Your task to perform on an android device: turn on priority inbox in the gmail app Image 0: 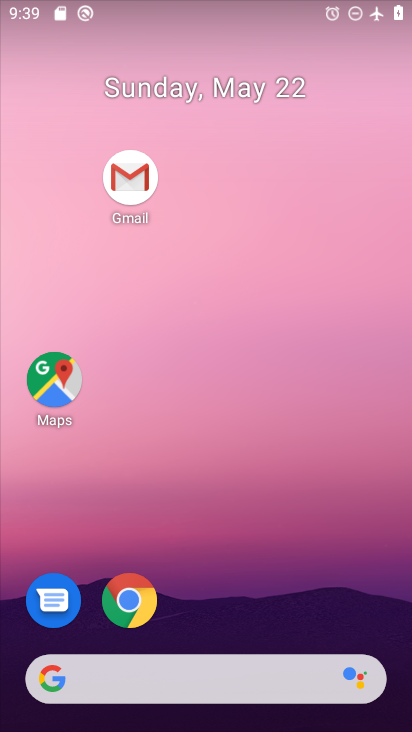
Step 0: drag from (246, 677) to (310, 118)
Your task to perform on an android device: turn on priority inbox in the gmail app Image 1: 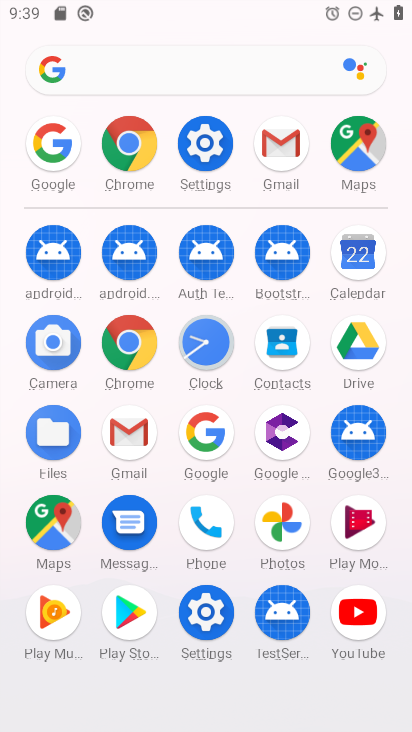
Step 1: click (287, 168)
Your task to perform on an android device: turn on priority inbox in the gmail app Image 2: 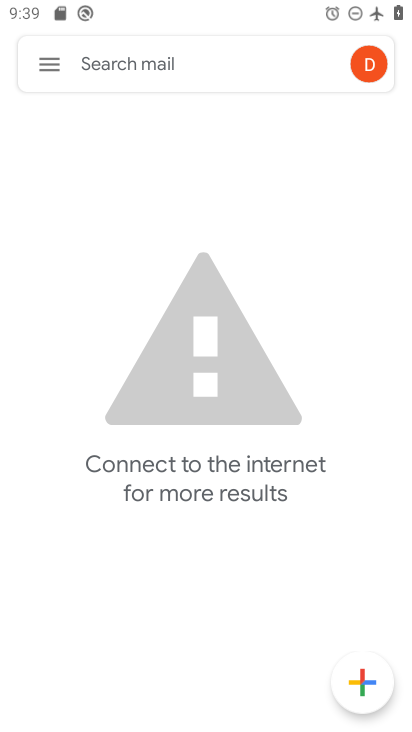
Step 2: click (52, 68)
Your task to perform on an android device: turn on priority inbox in the gmail app Image 3: 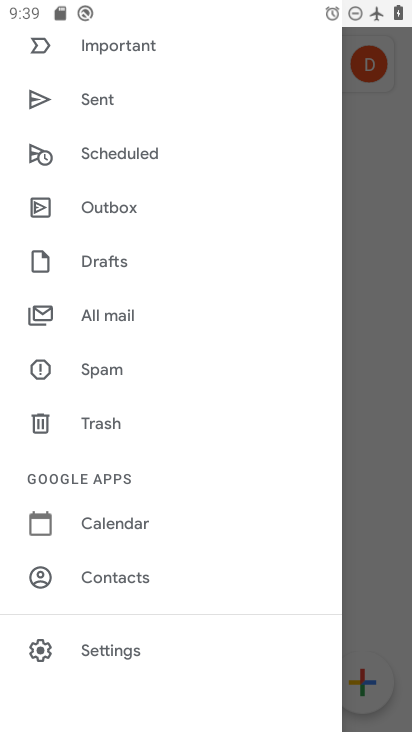
Step 3: click (131, 657)
Your task to perform on an android device: turn on priority inbox in the gmail app Image 4: 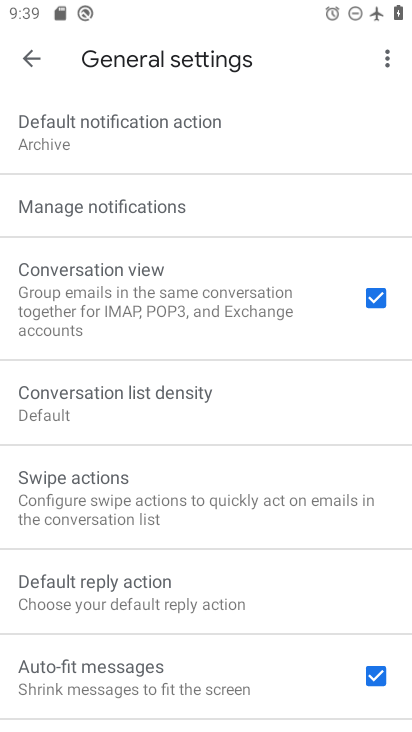
Step 4: click (39, 59)
Your task to perform on an android device: turn on priority inbox in the gmail app Image 5: 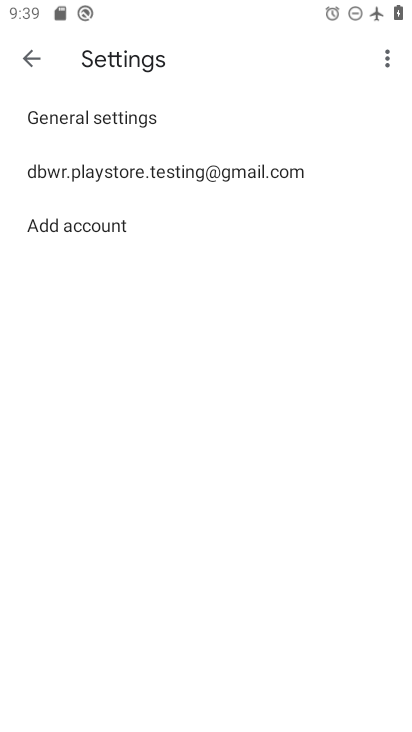
Step 5: click (222, 180)
Your task to perform on an android device: turn on priority inbox in the gmail app Image 6: 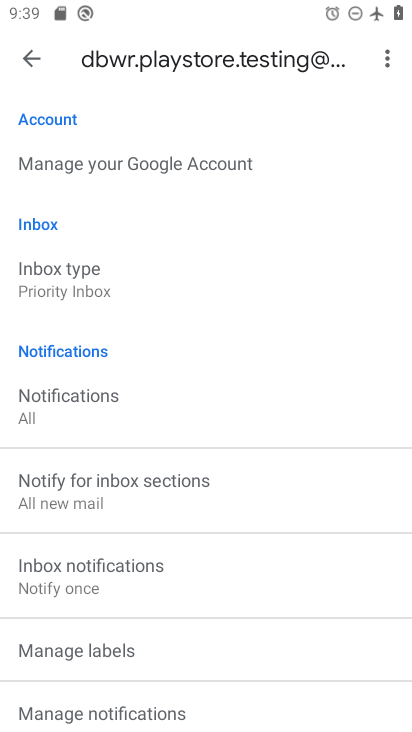
Step 6: task complete